Your task to perform on an android device: toggle wifi Image 0: 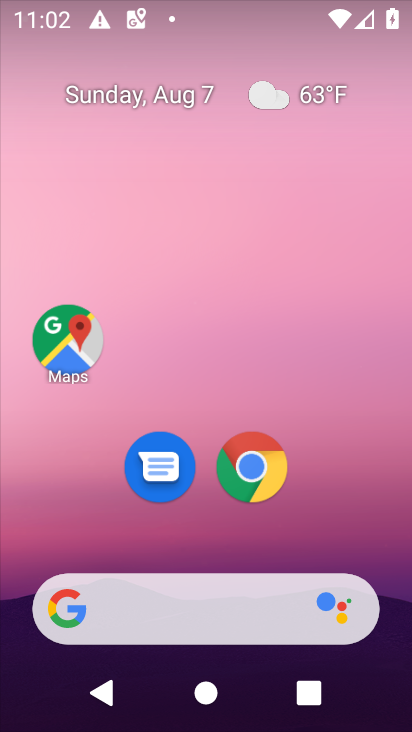
Step 0: drag from (234, 631) to (228, 291)
Your task to perform on an android device: toggle wifi Image 1: 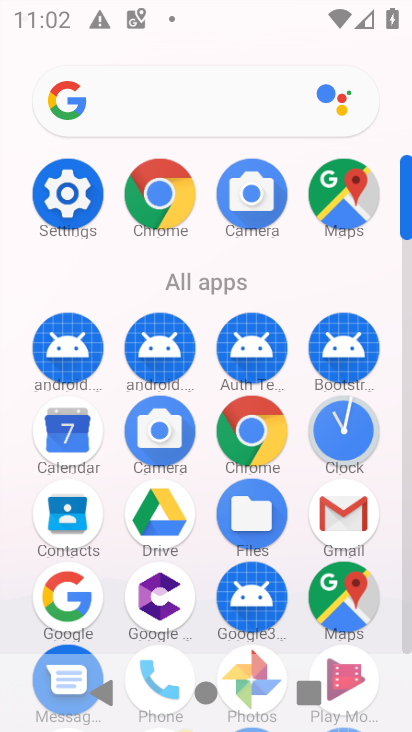
Step 1: drag from (273, 591) to (259, 138)
Your task to perform on an android device: toggle wifi Image 2: 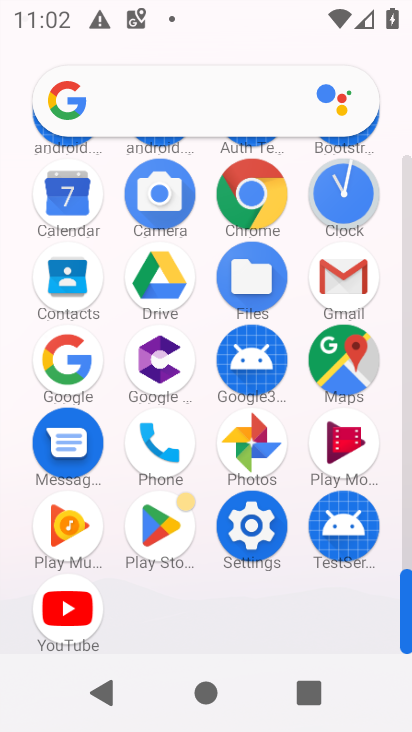
Step 2: click (74, 195)
Your task to perform on an android device: toggle wifi Image 3: 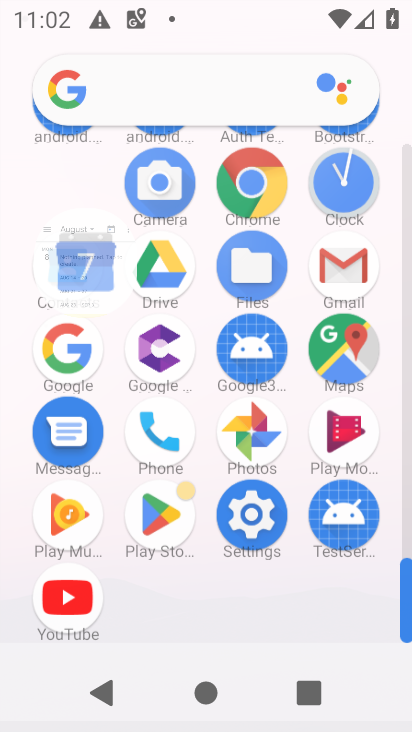
Step 3: click (255, 519)
Your task to perform on an android device: toggle wifi Image 4: 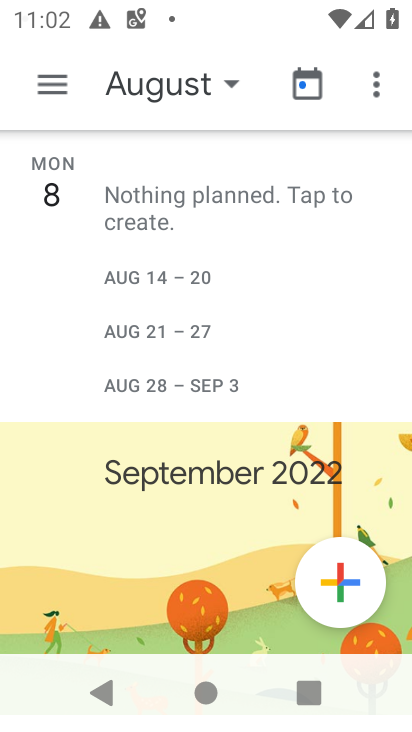
Step 4: press back button
Your task to perform on an android device: toggle wifi Image 5: 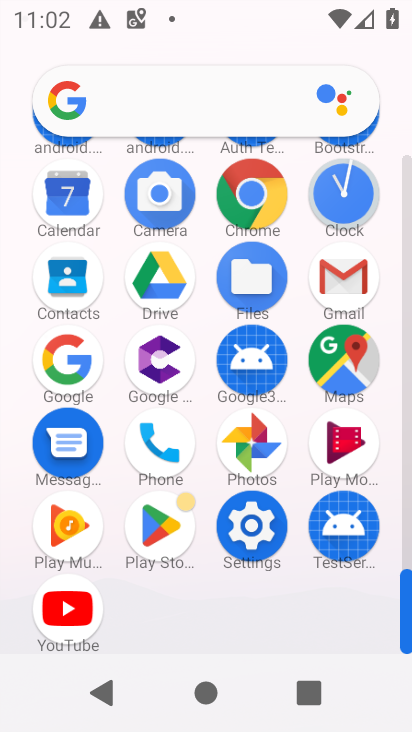
Step 5: click (261, 523)
Your task to perform on an android device: toggle wifi Image 6: 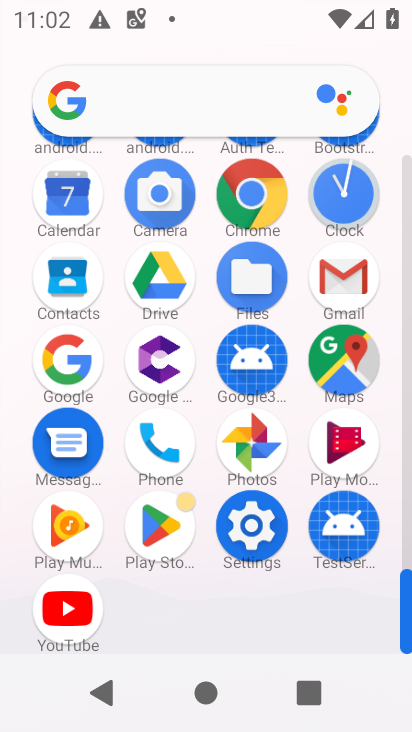
Step 6: click (265, 525)
Your task to perform on an android device: toggle wifi Image 7: 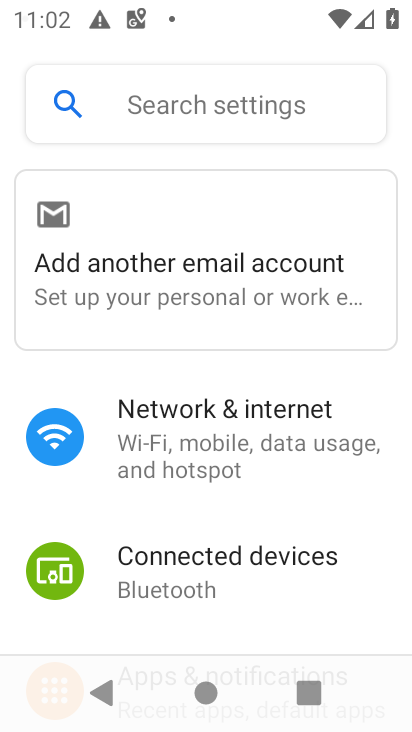
Step 7: task complete